Your task to perform on an android device: turn pop-ups on in chrome Image 0: 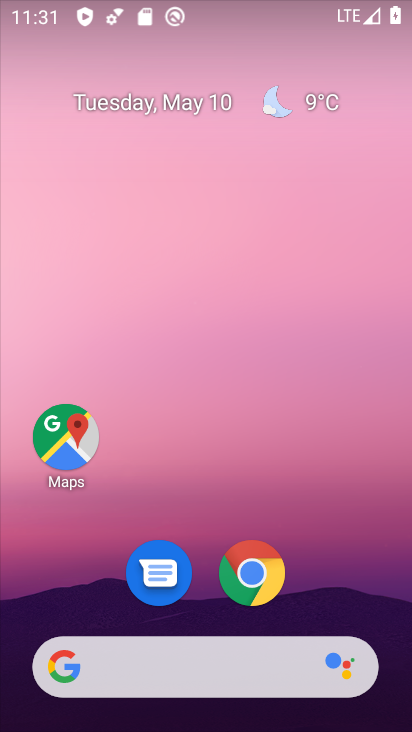
Step 0: click (245, 586)
Your task to perform on an android device: turn pop-ups on in chrome Image 1: 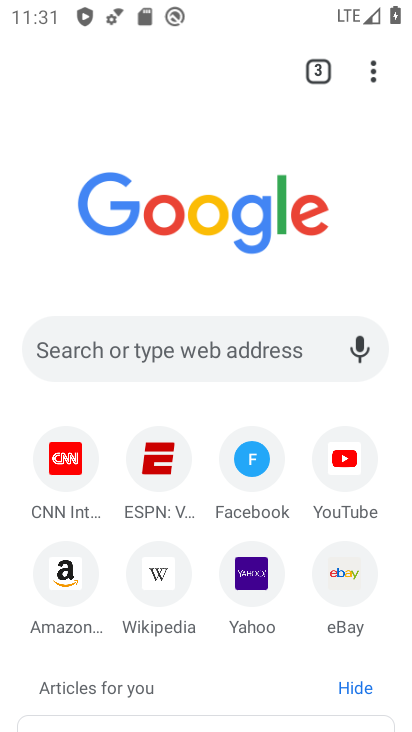
Step 1: drag from (374, 83) to (177, 600)
Your task to perform on an android device: turn pop-ups on in chrome Image 2: 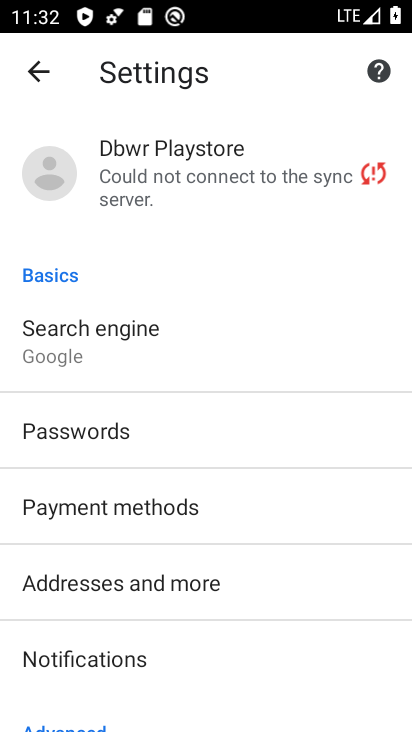
Step 2: drag from (206, 617) to (316, 150)
Your task to perform on an android device: turn pop-ups on in chrome Image 3: 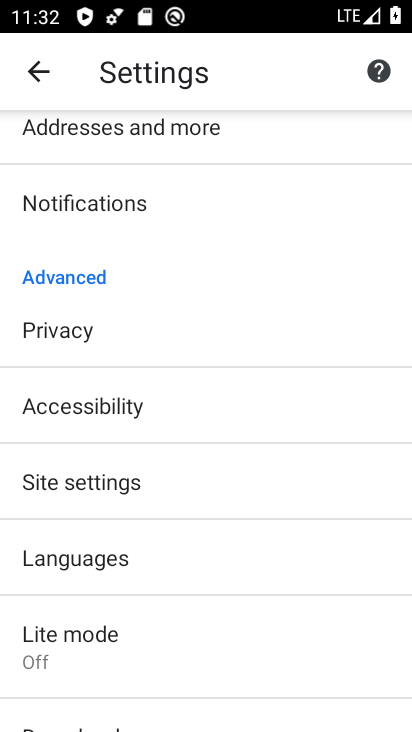
Step 3: click (120, 479)
Your task to perform on an android device: turn pop-ups on in chrome Image 4: 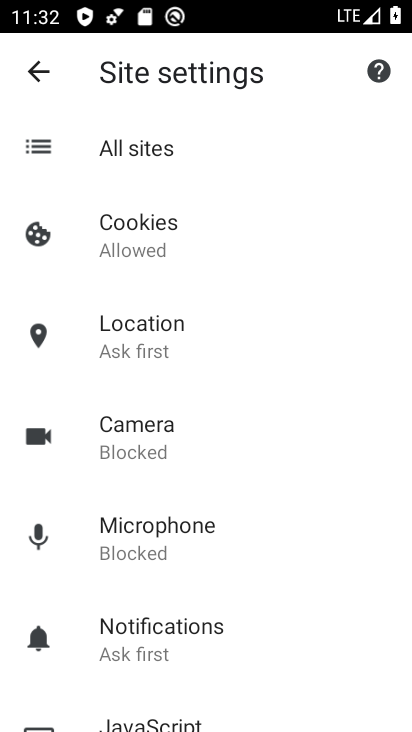
Step 4: drag from (255, 544) to (366, 149)
Your task to perform on an android device: turn pop-ups on in chrome Image 5: 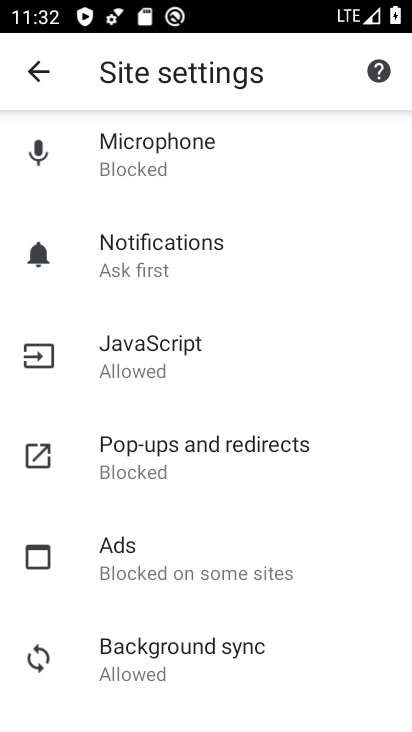
Step 5: click (184, 447)
Your task to perform on an android device: turn pop-ups on in chrome Image 6: 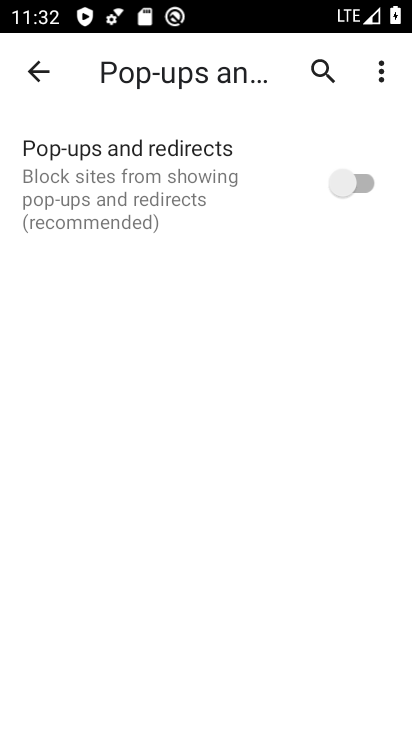
Step 6: click (356, 181)
Your task to perform on an android device: turn pop-ups on in chrome Image 7: 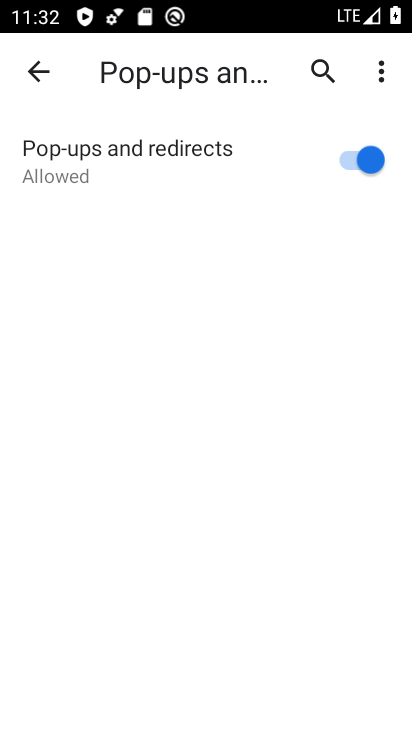
Step 7: task complete